Your task to perform on an android device: stop showing notifications on the lock screen Image 0: 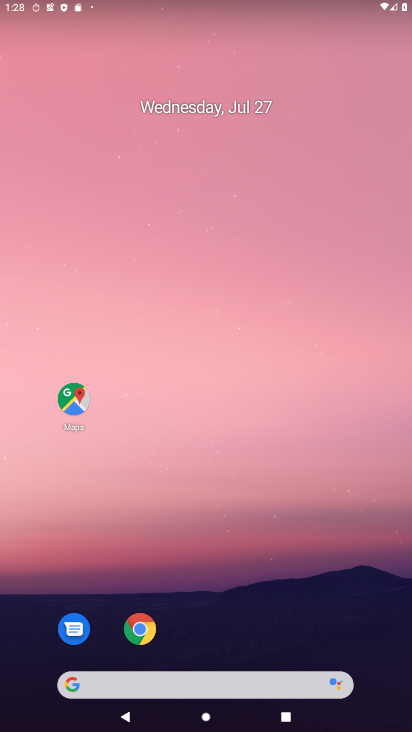
Step 0: drag from (346, 578) to (217, 0)
Your task to perform on an android device: stop showing notifications on the lock screen Image 1: 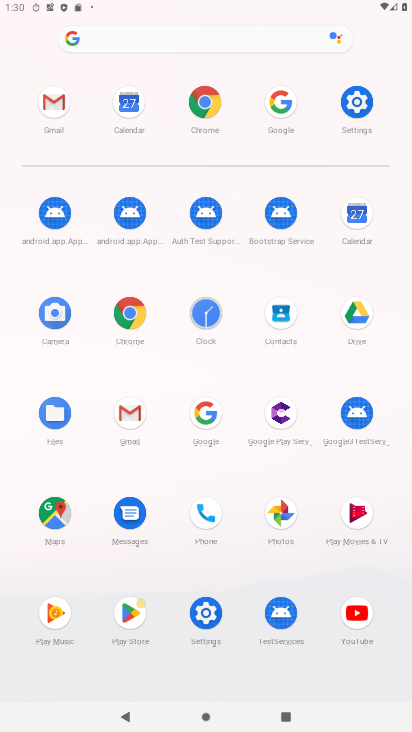
Step 1: click (357, 108)
Your task to perform on an android device: stop showing notifications on the lock screen Image 2: 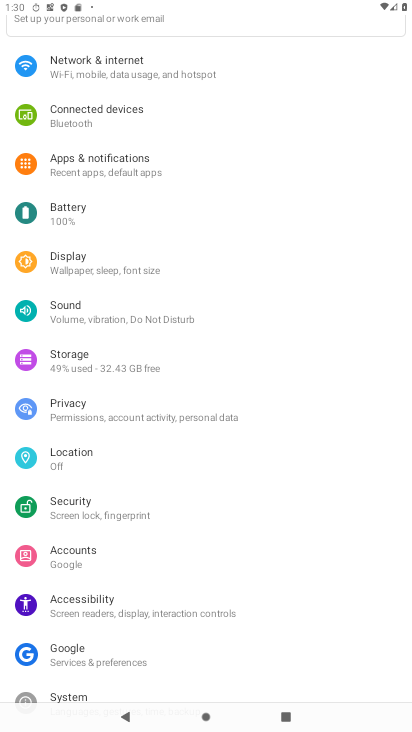
Step 2: click (141, 170)
Your task to perform on an android device: stop showing notifications on the lock screen Image 3: 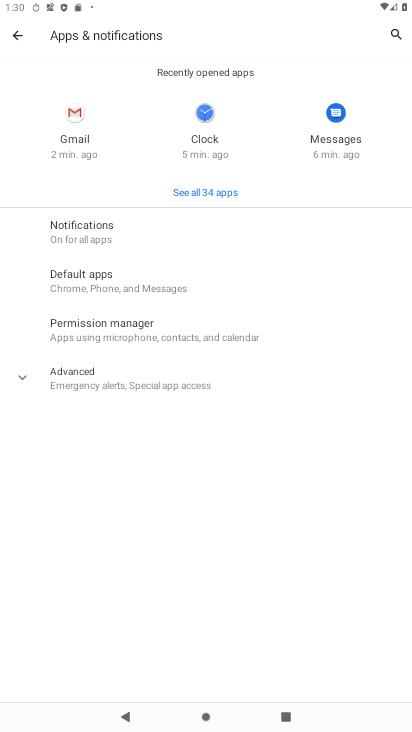
Step 3: click (85, 224)
Your task to perform on an android device: stop showing notifications on the lock screen Image 4: 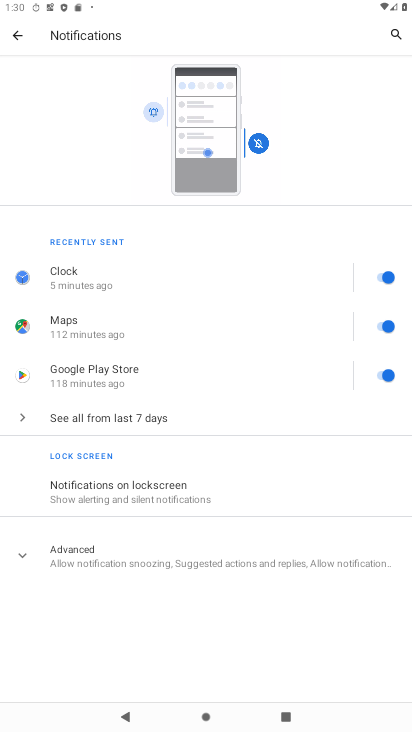
Step 4: click (58, 487)
Your task to perform on an android device: stop showing notifications on the lock screen Image 5: 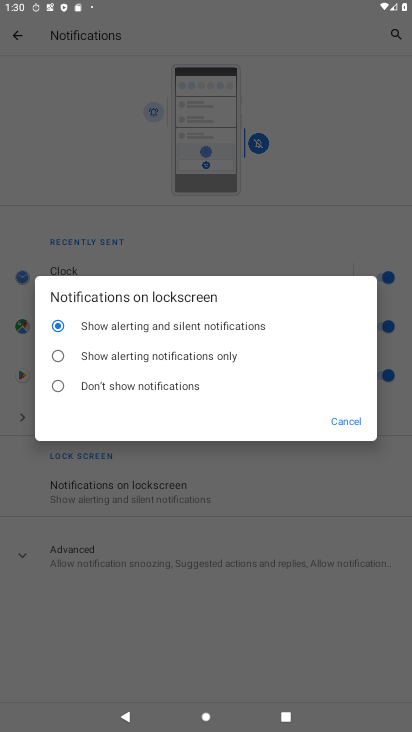
Step 5: click (80, 394)
Your task to perform on an android device: stop showing notifications on the lock screen Image 6: 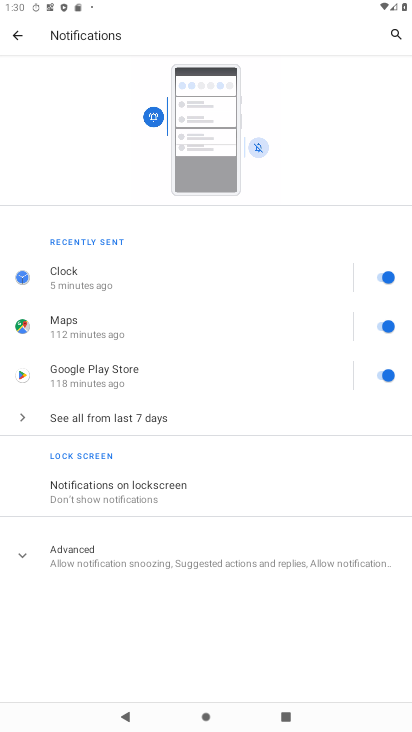
Step 6: task complete